Your task to perform on an android device: turn off priority inbox in the gmail app Image 0: 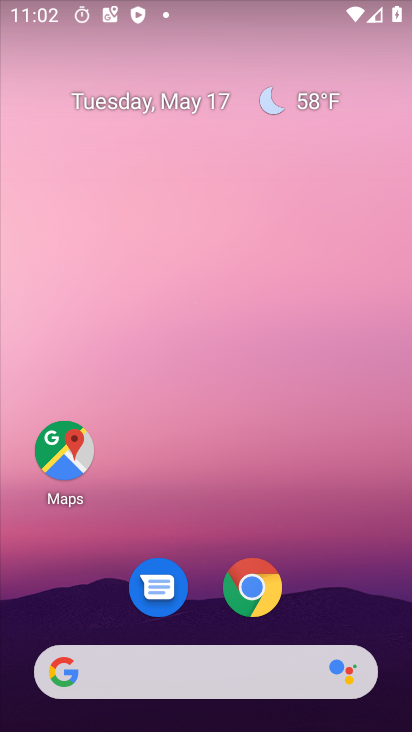
Step 0: drag from (316, 603) to (330, 22)
Your task to perform on an android device: turn off priority inbox in the gmail app Image 1: 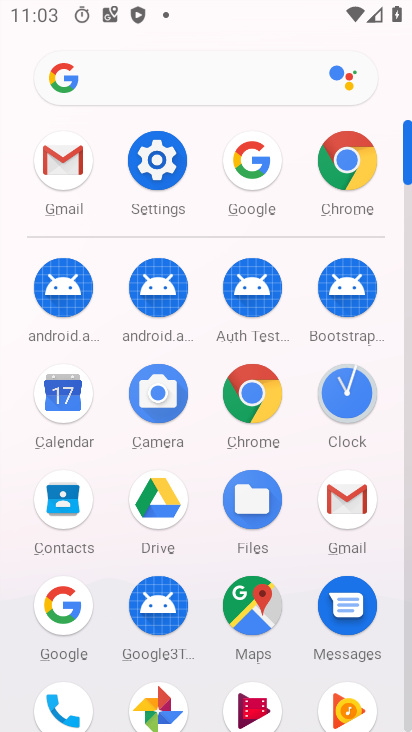
Step 1: click (61, 159)
Your task to perform on an android device: turn off priority inbox in the gmail app Image 2: 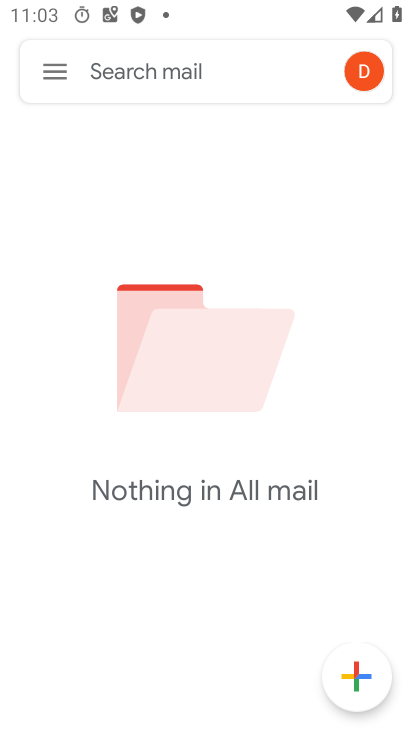
Step 2: click (50, 66)
Your task to perform on an android device: turn off priority inbox in the gmail app Image 3: 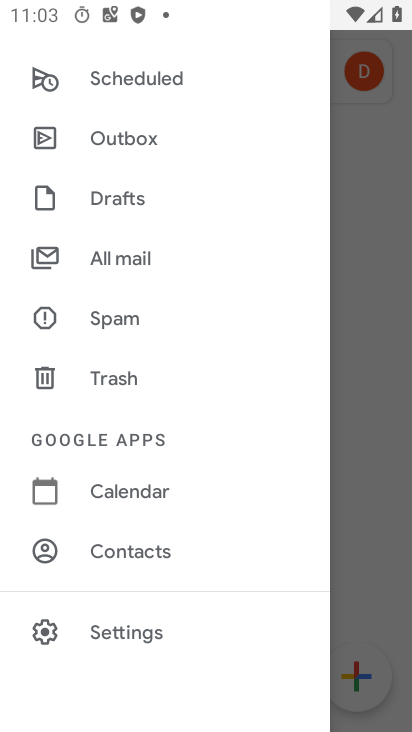
Step 3: click (125, 626)
Your task to perform on an android device: turn off priority inbox in the gmail app Image 4: 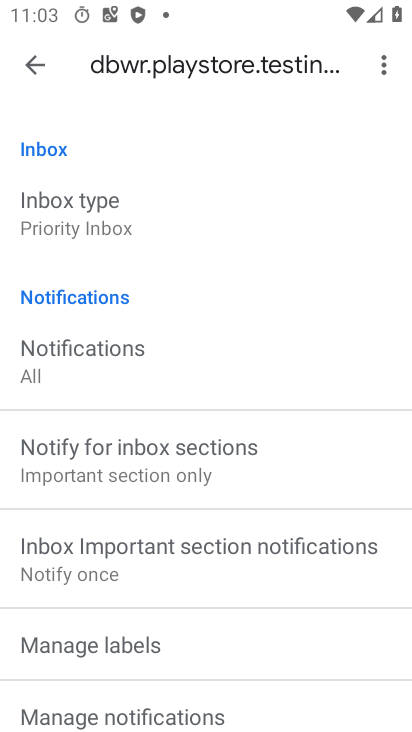
Step 4: click (104, 226)
Your task to perform on an android device: turn off priority inbox in the gmail app Image 5: 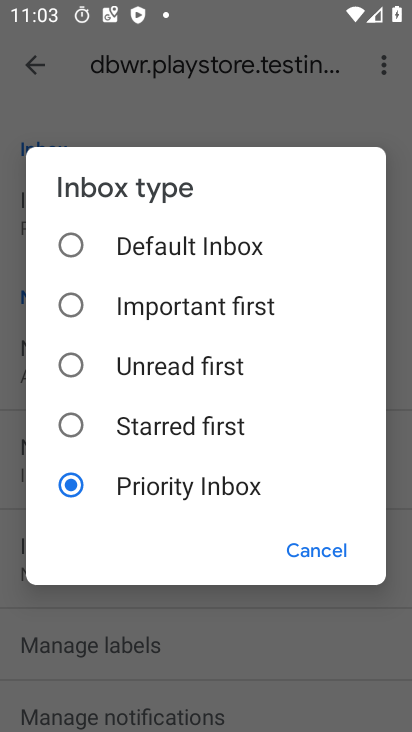
Step 5: click (78, 242)
Your task to perform on an android device: turn off priority inbox in the gmail app Image 6: 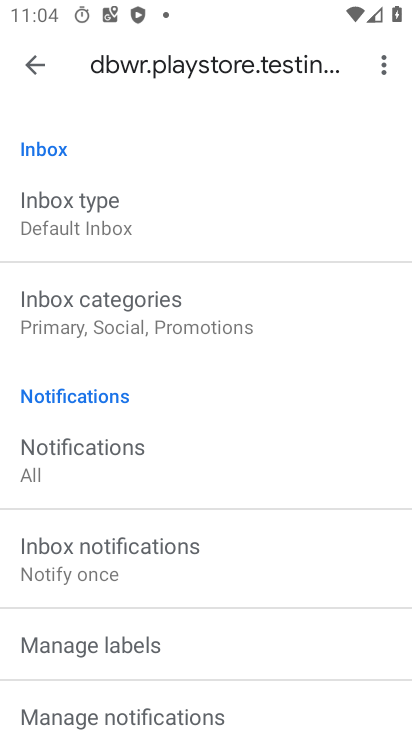
Step 6: task complete